Your task to perform on an android device: turn off sleep mode Image 0: 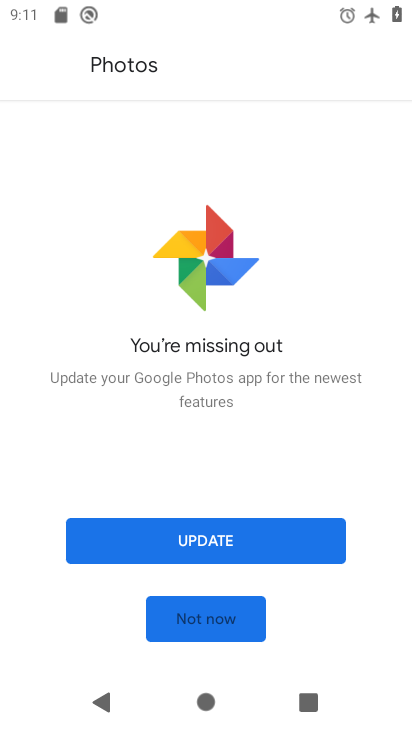
Step 0: press home button
Your task to perform on an android device: turn off sleep mode Image 1: 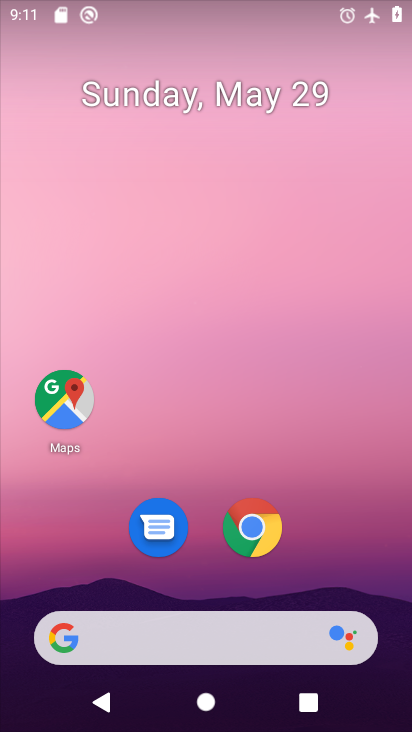
Step 1: drag from (203, 581) to (218, 97)
Your task to perform on an android device: turn off sleep mode Image 2: 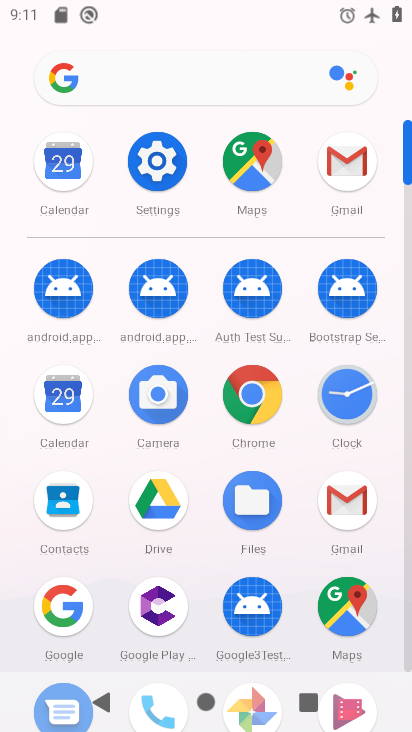
Step 2: click (153, 161)
Your task to perform on an android device: turn off sleep mode Image 3: 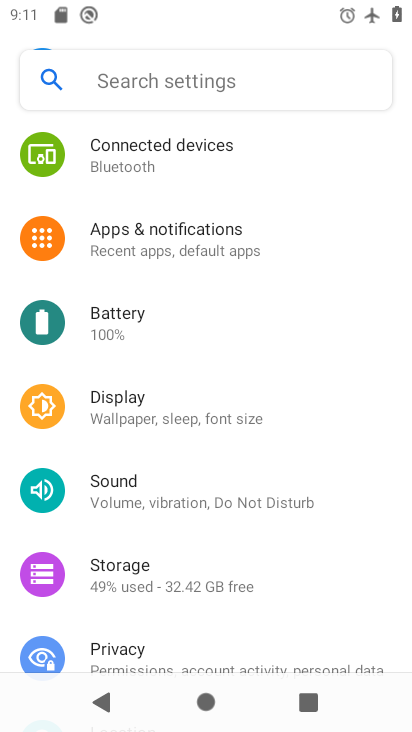
Step 3: click (158, 399)
Your task to perform on an android device: turn off sleep mode Image 4: 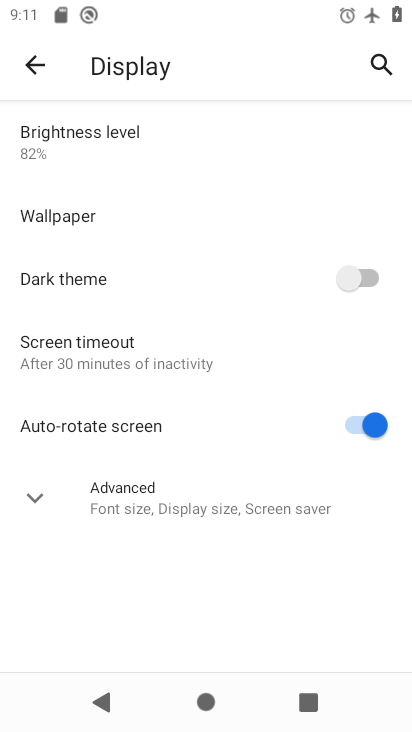
Step 4: click (52, 508)
Your task to perform on an android device: turn off sleep mode Image 5: 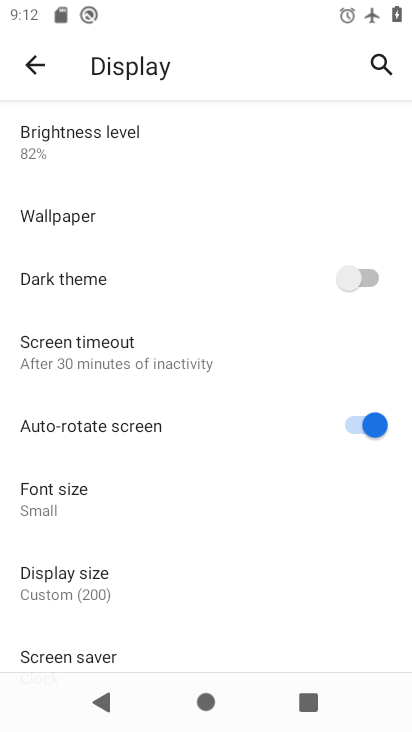
Step 5: task complete